Your task to perform on an android device: Play the latest video from the Wall Street Journal Image 0: 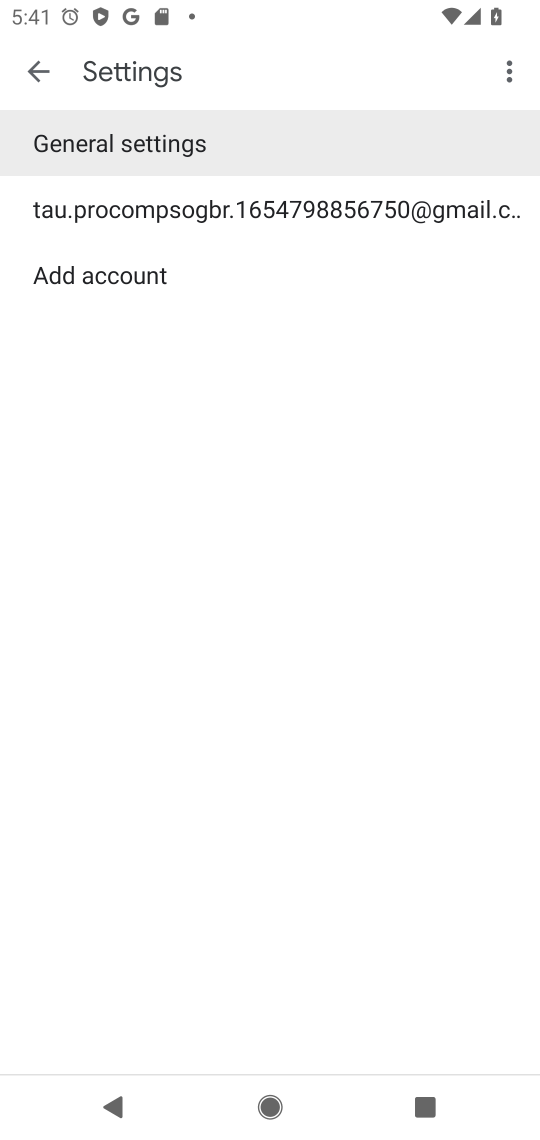
Step 0: press home button
Your task to perform on an android device: Play the latest video from the Wall Street Journal Image 1: 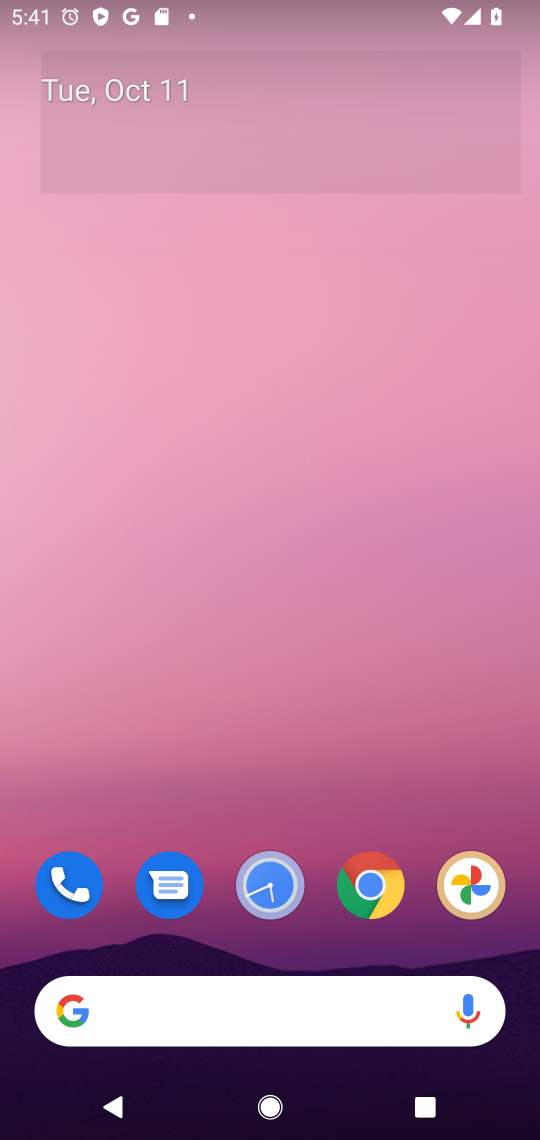
Step 1: drag from (290, 789) to (228, 251)
Your task to perform on an android device: Play the latest video from the Wall Street Journal Image 2: 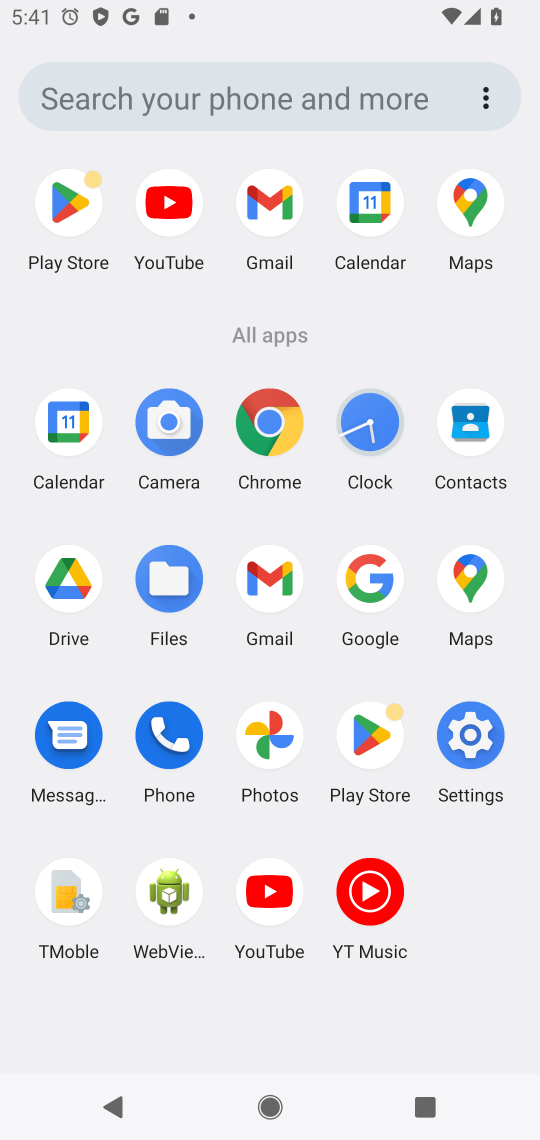
Step 2: click (169, 195)
Your task to perform on an android device: Play the latest video from the Wall Street Journal Image 3: 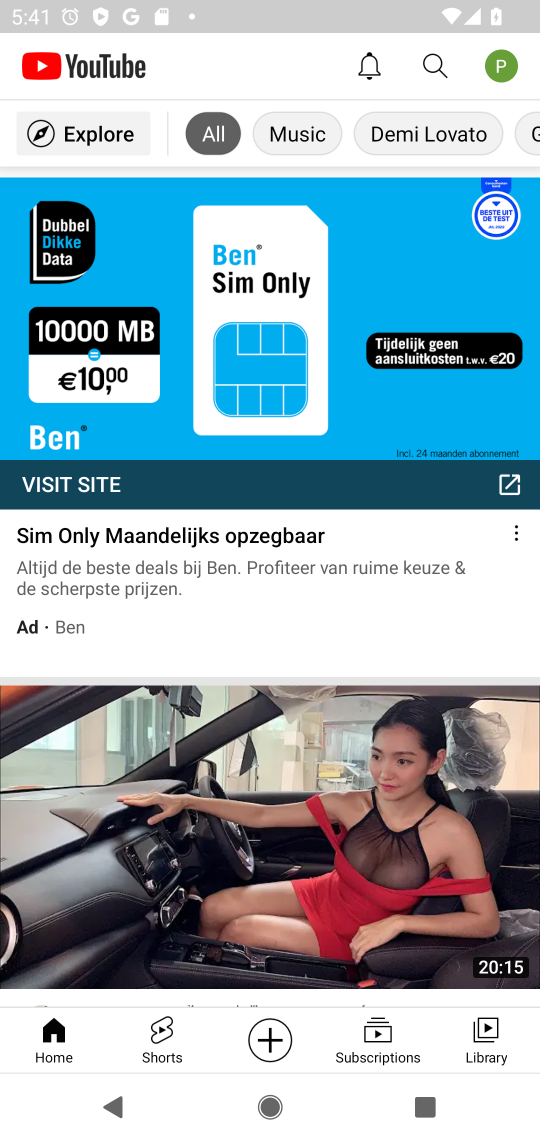
Step 3: click (433, 62)
Your task to perform on an android device: Play the latest video from the Wall Street Journal Image 4: 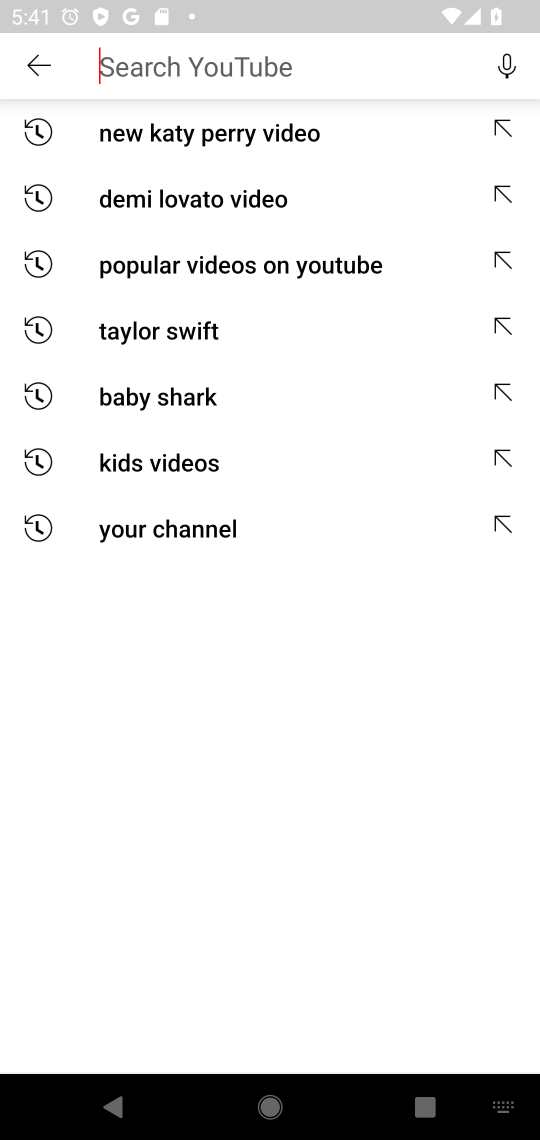
Step 4: type "latest video from the Wall Street Journal"
Your task to perform on an android device: Play the latest video from the Wall Street Journal Image 5: 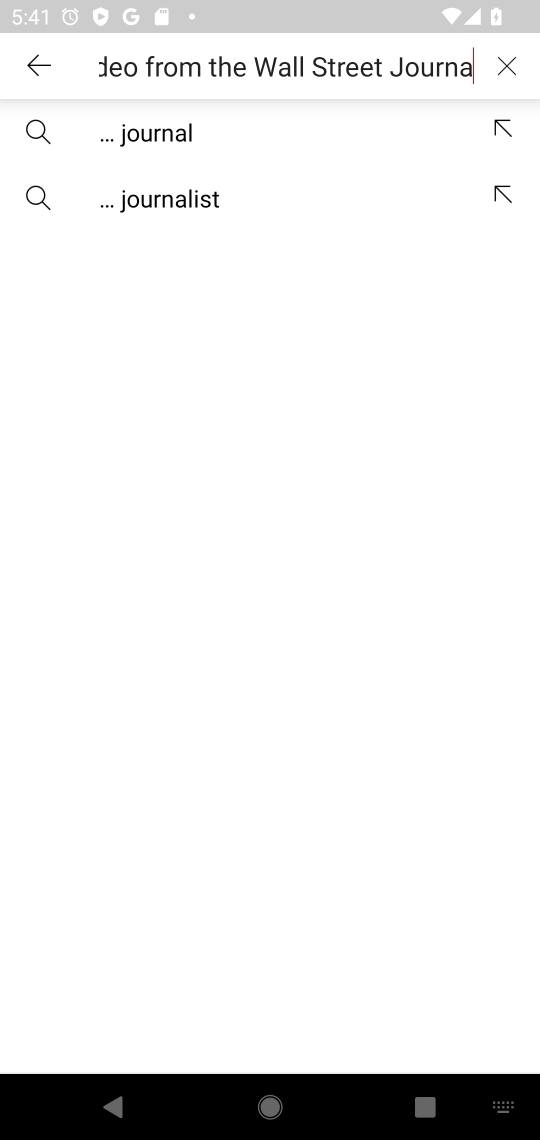
Step 5: press enter
Your task to perform on an android device: Play the latest video from the Wall Street Journal Image 6: 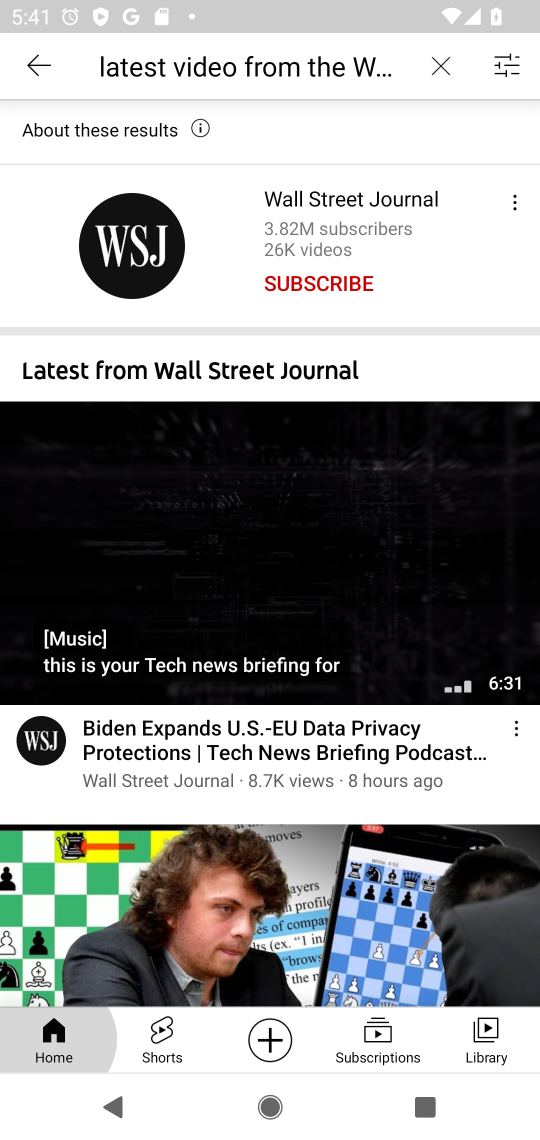
Step 6: click (227, 577)
Your task to perform on an android device: Play the latest video from the Wall Street Journal Image 7: 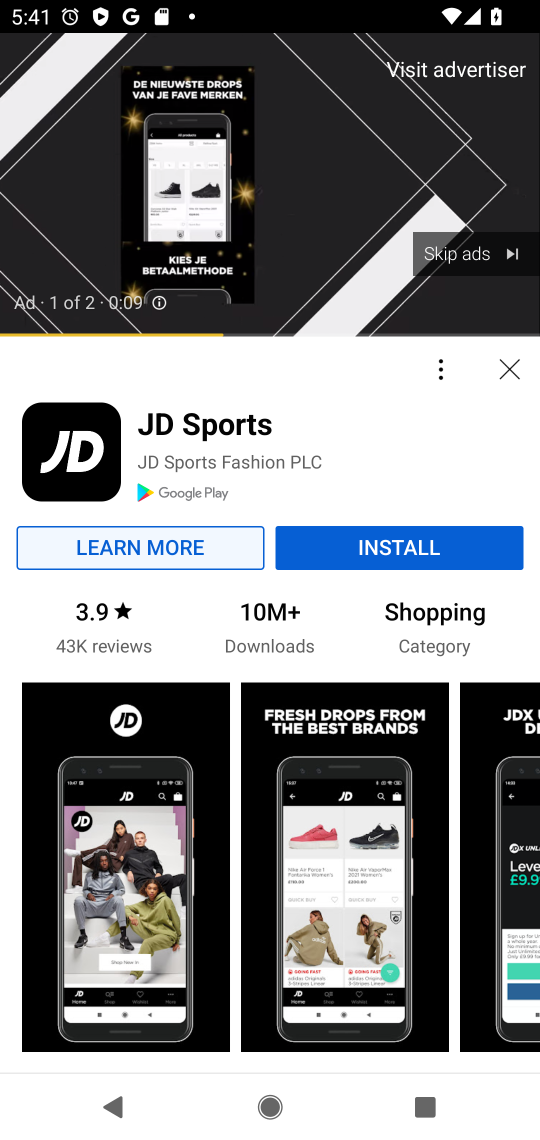
Step 7: task complete